Your task to perform on an android device: open app "Microsoft Excel" (install if not already installed) Image 0: 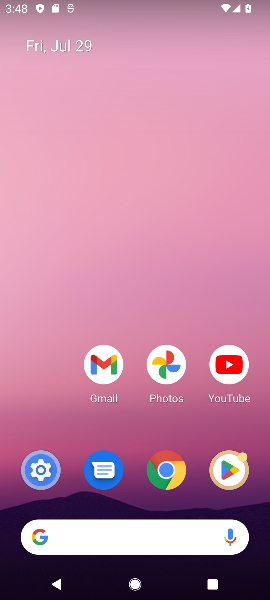
Step 0: click (242, 468)
Your task to perform on an android device: open app "Microsoft Excel" (install if not already installed) Image 1: 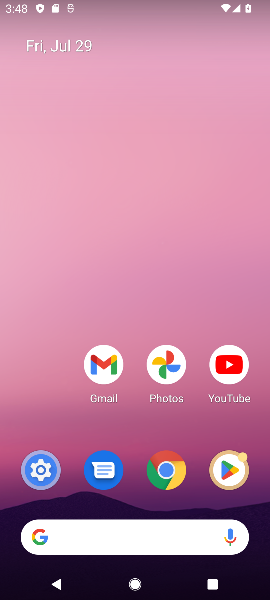
Step 1: click (223, 473)
Your task to perform on an android device: open app "Microsoft Excel" (install if not already installed) Image 2: 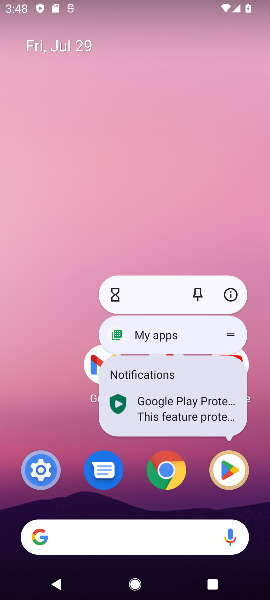
Step 2: click (223, 473)
Your task to perform on an android device: open app "Microsoft Excel" (install if not already installed) Image 3: 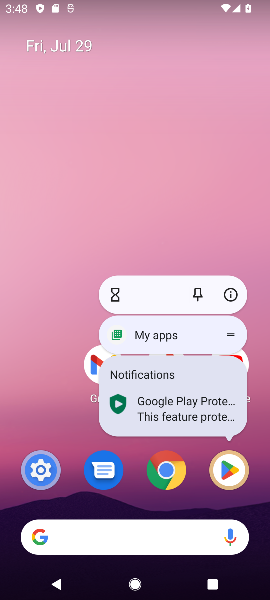
Step 3: click (223, 473)
Your task to perform on an android device: open app "Microsoft Excel" (install if not already installed) Image 4: 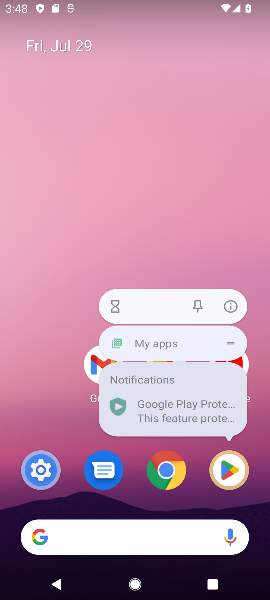
Step 4: click (223, 473)
Your task to perform on an android device: open app "Microsoft Excel" (install if not already installed) Image 5: 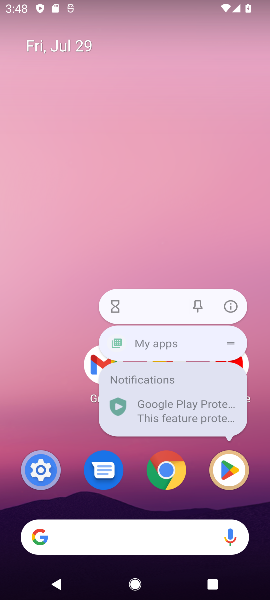
Step 5: click (223, 473)
Your task to perform on an android device: open app "Microsoft Excel" (install if not already installed) Image 6: 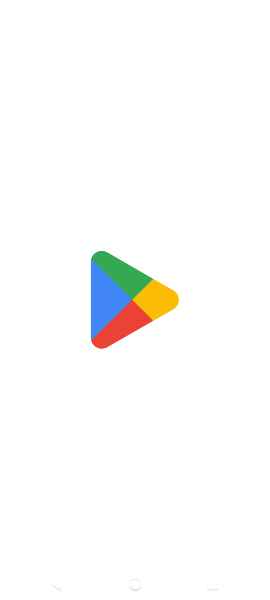
Step 6: click (223, 473)
Your task to perform on an android device: open app "Microsoft Excel" (install if not already installed) Image 7: 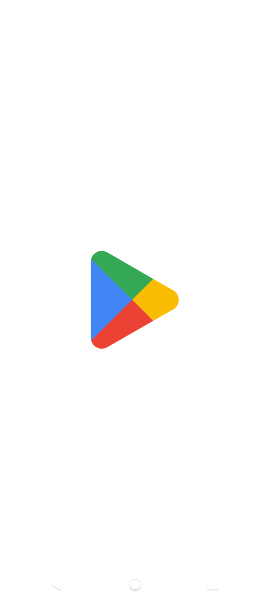
Step 7: click (223, 473)
Your task to perform on an android device: open app "Microsoft Excel" (install if not already installed) Image 8: 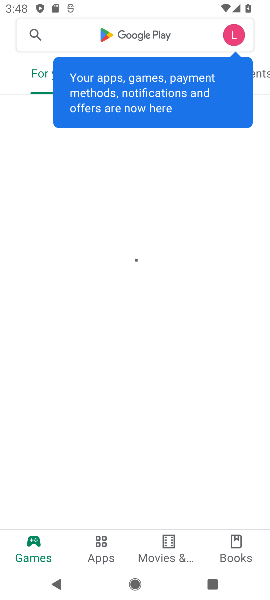
Step 8: click (103, 30)
Your task to perform on an android device: open app "Microsoft Excel" (install if not already installed) Image 9: 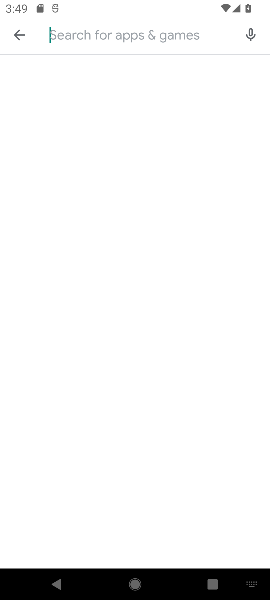
Step 9: type "Microsoft Excel"
Your task to perform on an android device: open app "Microsoft Excel" (install if not already installed) Image 10: 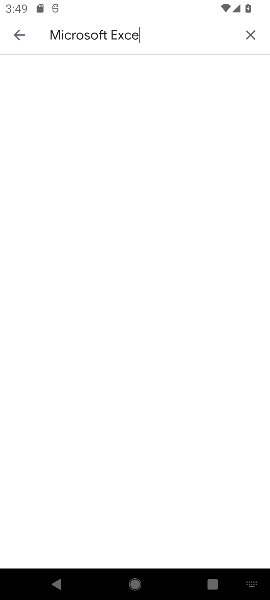
Step 10: press enter
Your task to perform on an android device: open app "Microsoft Excel" (install if not already installed) Image 11: 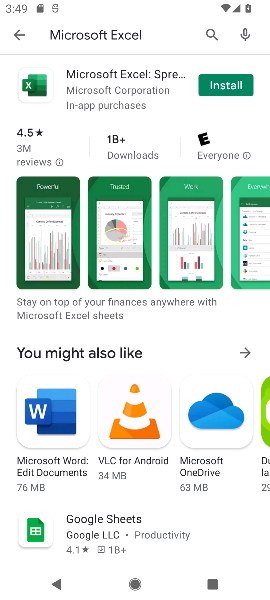
Step 11: click (225, 84)
Your task to perform on an android device: open app "Microsoft Excel" (install if not already installed) Image 12: 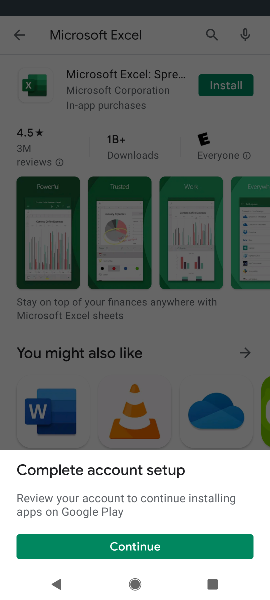
Step 12: click (115, 552)
Your task to perform on an android device: open app "Microsoft Excel" (install if not already installed) Image 13: 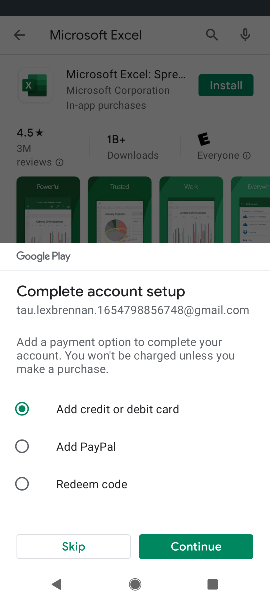
Step 13: click (117, 542)
Your task to perform on an android device: open app "Microsoft Excel" (install if not already installed) Image 14: 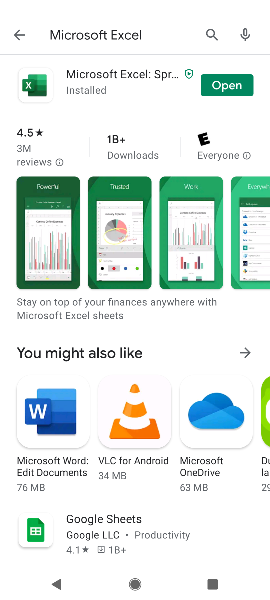
Step 14: click (232, 72)
Your task to perform on an android device: open app "Microsoft Excel" (install if not already installed) Image 15: 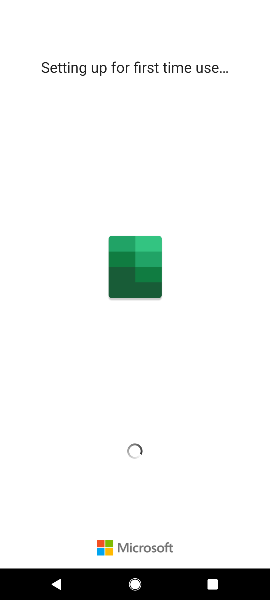
Step 15: task complete